Your task to perform on an android device: Open Youtube and go to the subscriptions tab Image 0: 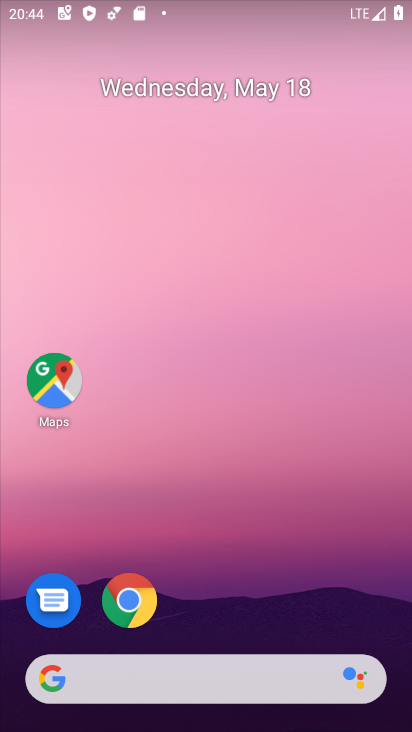
Step 0: drag from (215, 630) to (299, 122)
Your task to perform on an android device: Open Youtube and go to the subscriptions tab Image 1: 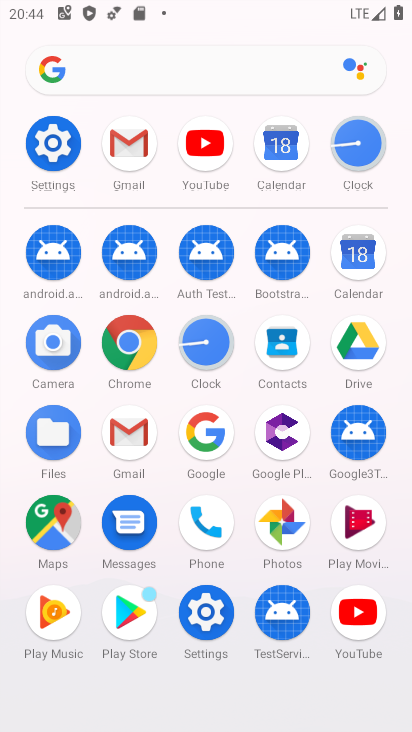
Step 1: click (369, 623)
Your task to perform on an android device: Open Youtube and go to the subscriptions tab Image 2: 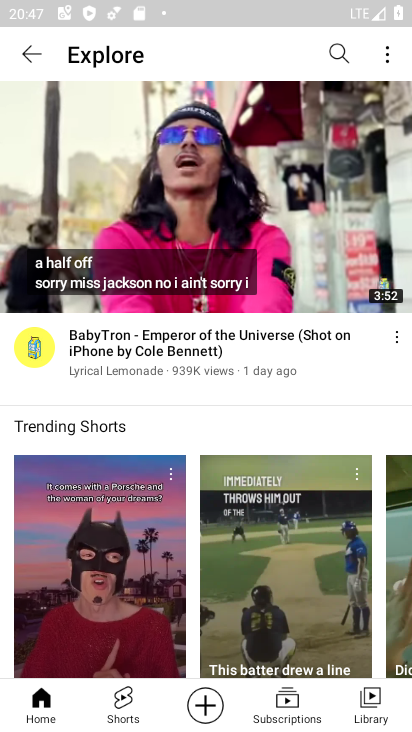
Step 2: click (302, 697)
Your task to perform on an android device: Open Youtube and go to the subscriptions tab Image 3: 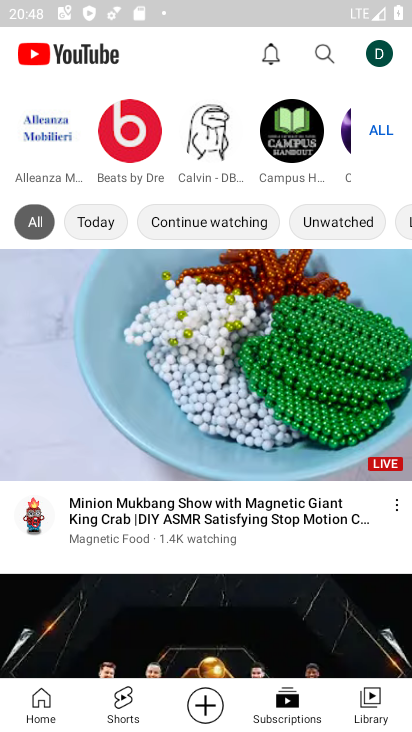
Step 3: task complete